Your task to perform on an android device: empty trash in google photos Image 0: 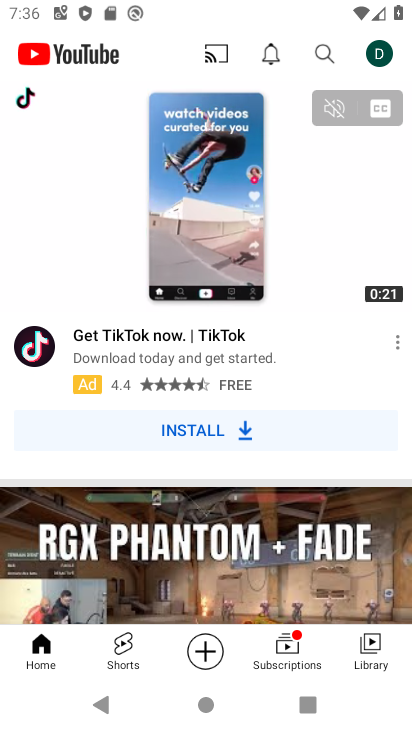
Step 0: press home button
Your task to perform on an android device: empty trash in google photos Image 1: 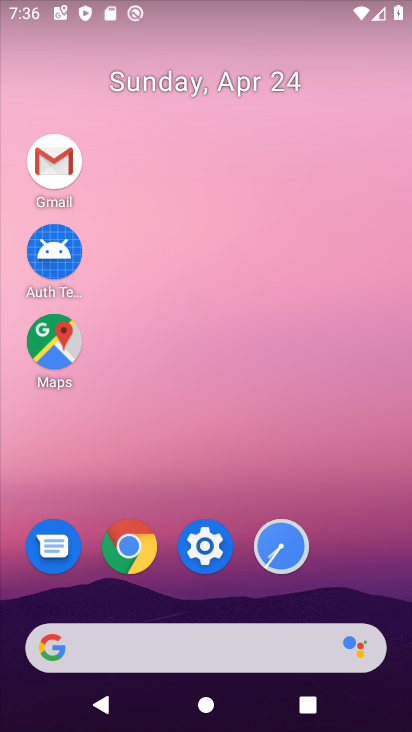
Step 1: drag from (354, 549) to (337, 37)
Your task to perform on an android device: empty trash in google photos Image 2: 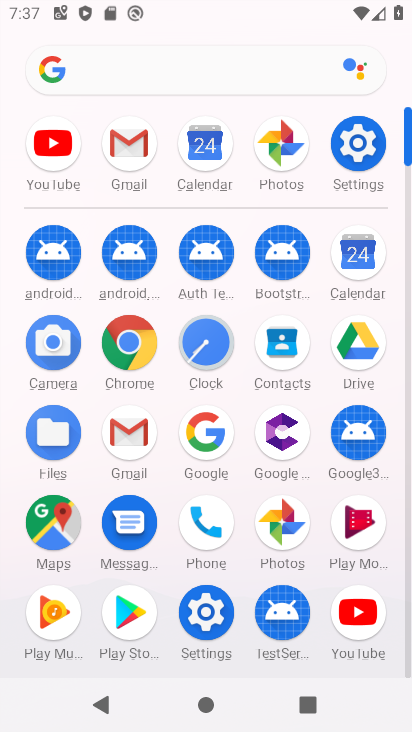
Step 2: click (286, 524)
Your task to perform on an android device: empty trash in google photos Image 3: 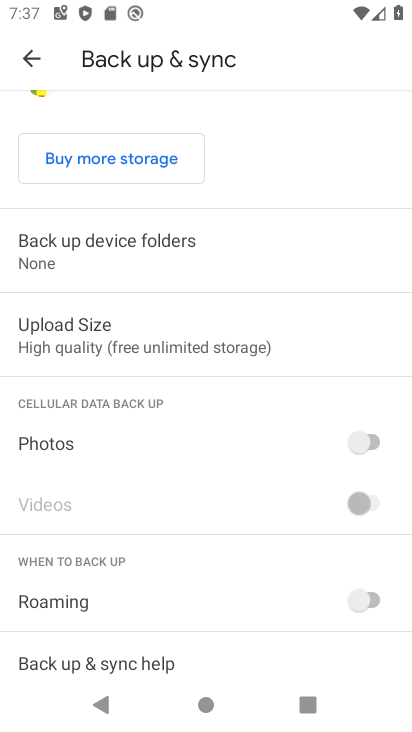
Step 3: click (27, 55)
Your task to perform on an android device: empty trash in google photos Image 4: 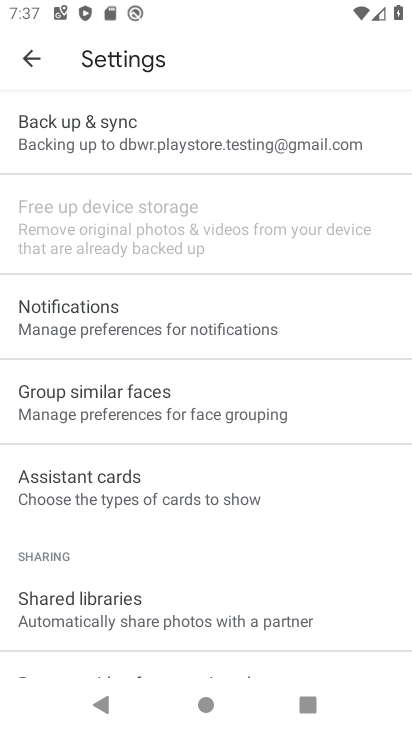
Step 4: click (28, 59)
Your task to perform on an android device: empty trash in google photos Image 5: 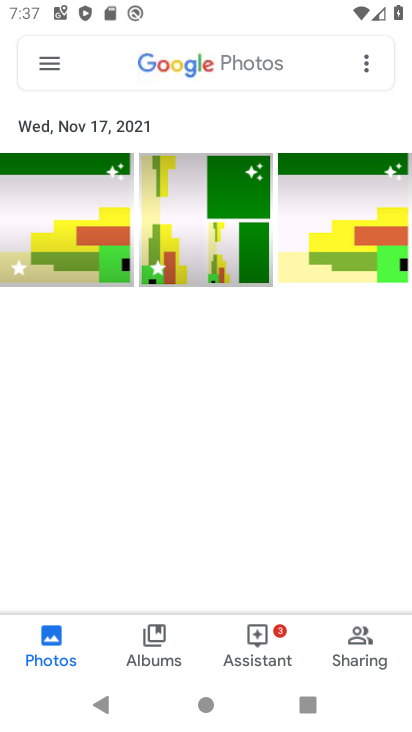
Step 5: click (40, 65)
Your task to perform on an android device: empty trash in google photos Image 6: 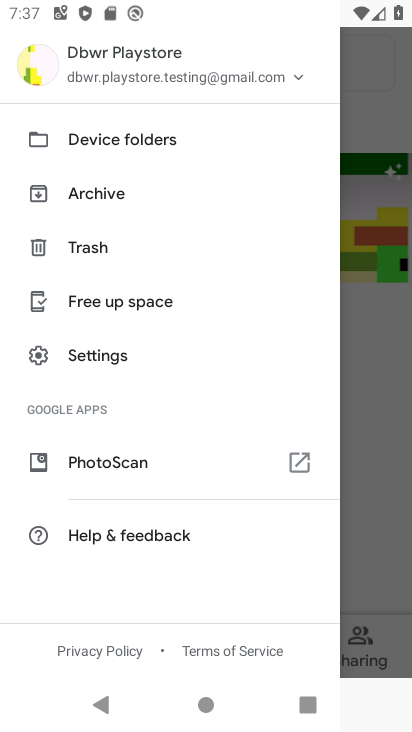
Step 6: click (78, 241)
Your task to perform on an android device: empty trash in google photos Image 7: 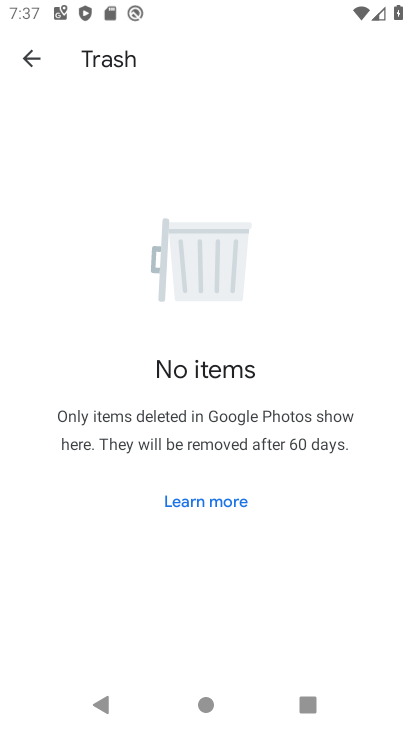
Step 7: task complete